Your task to perform on an android device: What is the news today? Image 0: 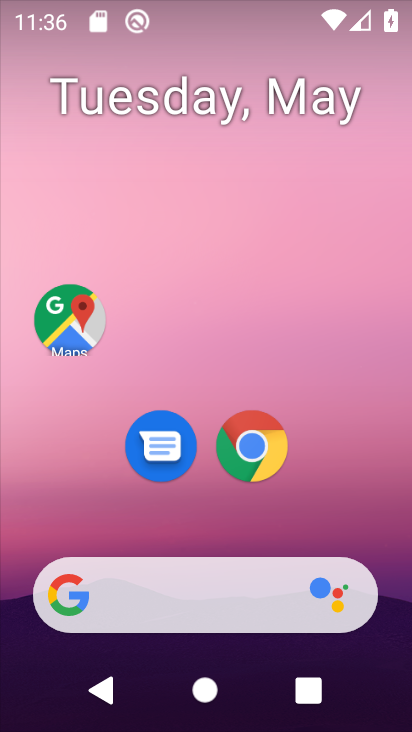
Step 0: press home button
Your task to perform on an android device: What is the news today? Image 1: 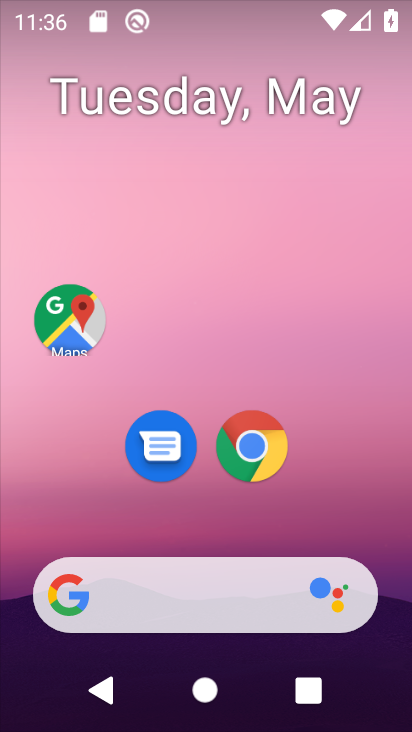
Step 1: drag from (223, 728) to (319, 724)
Your task to perform on an android device: What is the news today? Image 2: 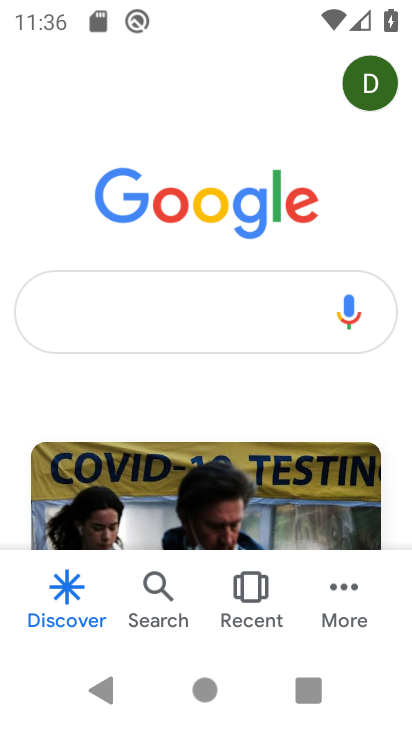
Step 2: press home button
Your task to perform on an android device: What is the news today? Image 3: 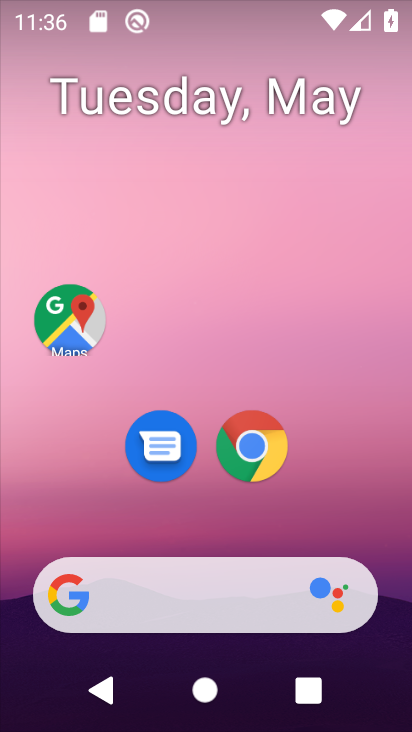
Step 3: click (280, 434)
Your task to perform on an android device: What is the news today? Image 4: 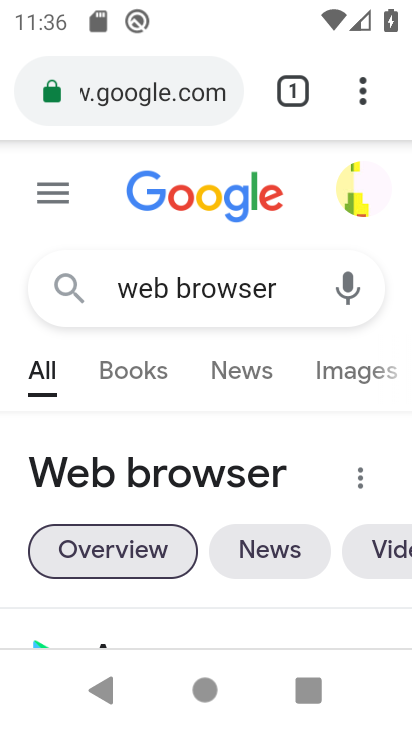
Step 4: click (147, 85)
Your task to perform on an android device: What is the news today? Image 5: 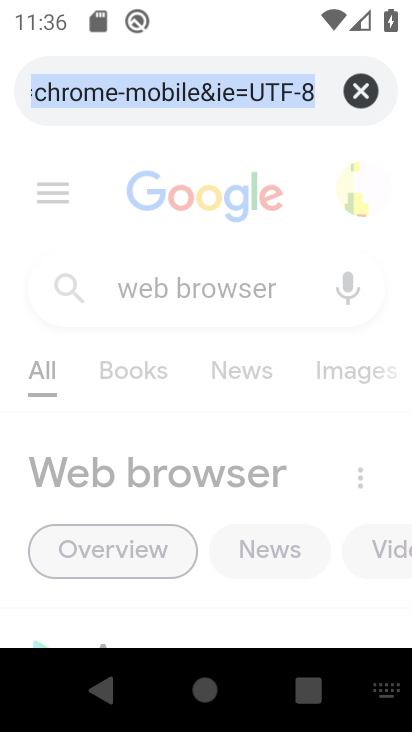
Step 5: click (364, 92)
Your task to perform on an android device: What is the news today? Image 6: 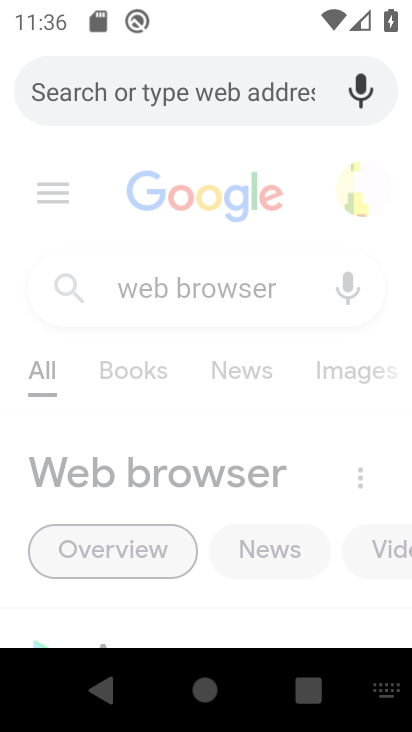
Step 6: type "What is the news today?"
Your task to perform on an android device: What is the news today? Image 7: 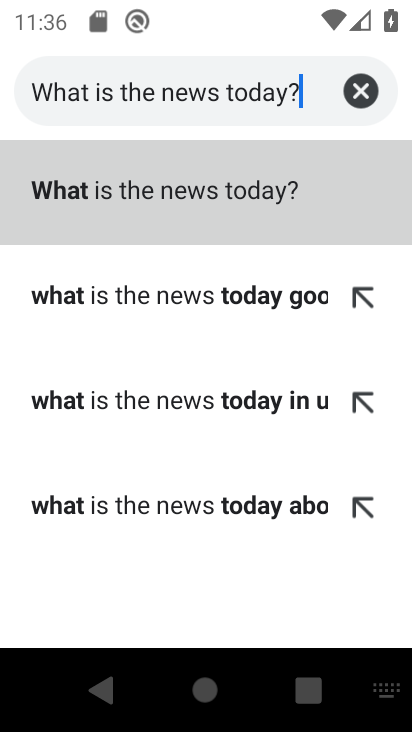
Step 7: click (182, 166)
Your task to perform on an android device: What is the news today? Image 8: 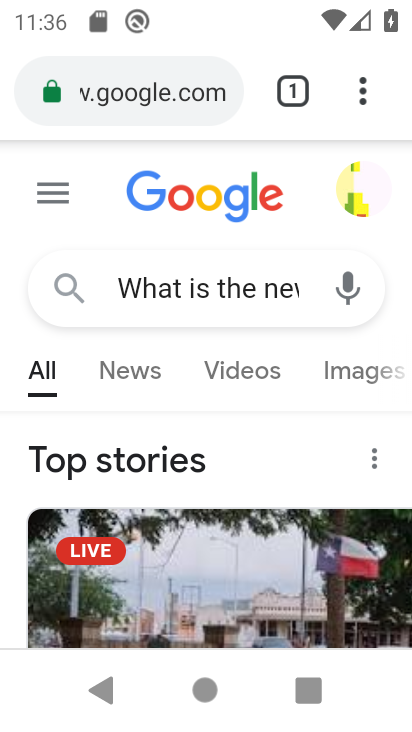
Step 8: task complete